Your task to perform on an android device: Do I have any events this weekend? Image 0: 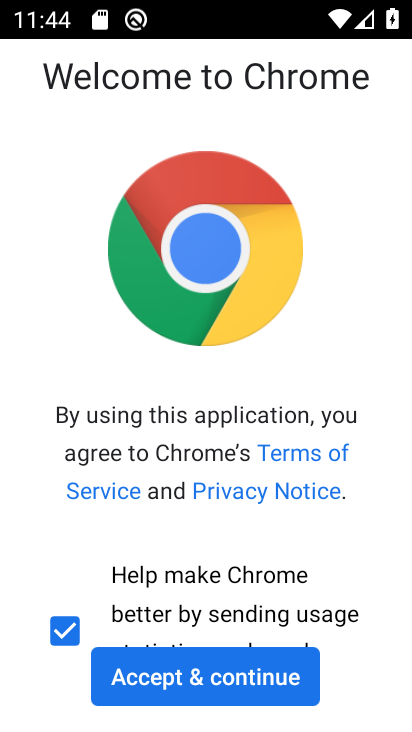
Step 0: click (255, 687)
Your task to perform on an android device: Do I have any events this weekend? Image 1: 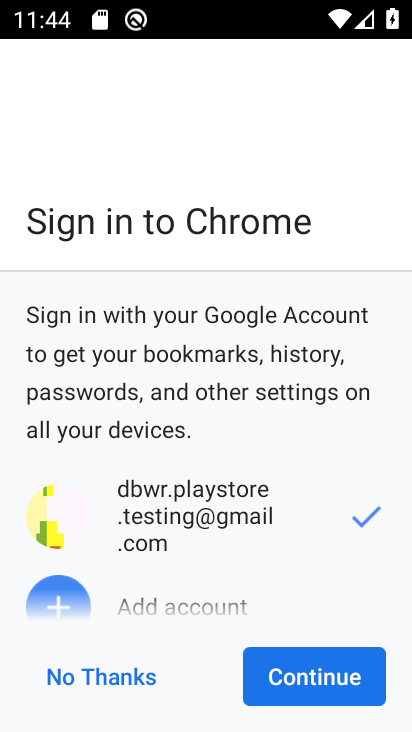
Step 1: click (128, 677)
Your task to perform on an android device: Do I have any events this weekend? Image 2: 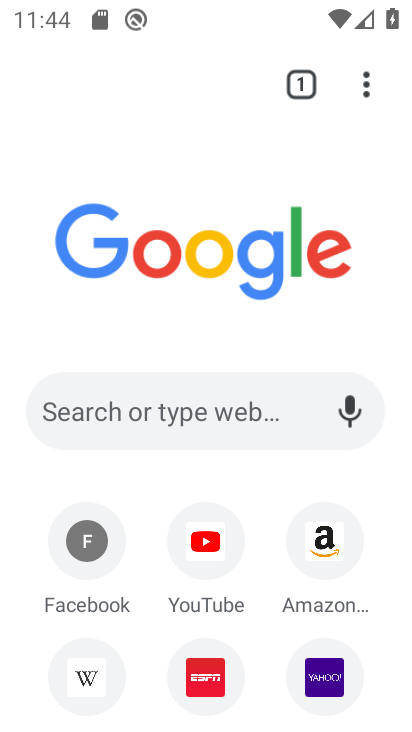
Step 2: press home button
Your task to perform on an android device: Do I have any events this weekend? Image 3: 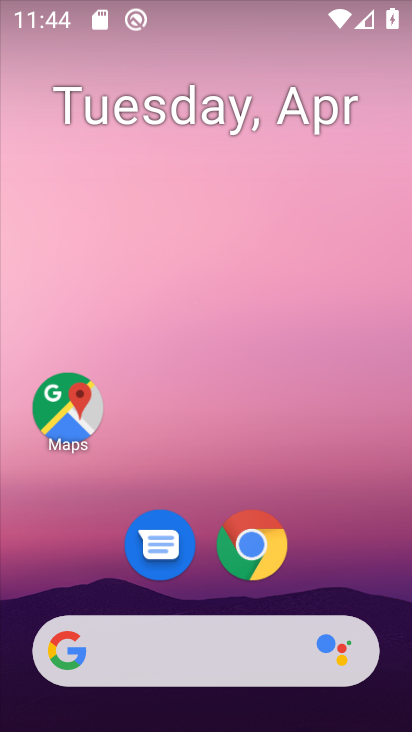
Step 3: drag from (333, 469) to (303, 146)
Your task to perform on an android device: Do I have any events this weekend? Image 4: 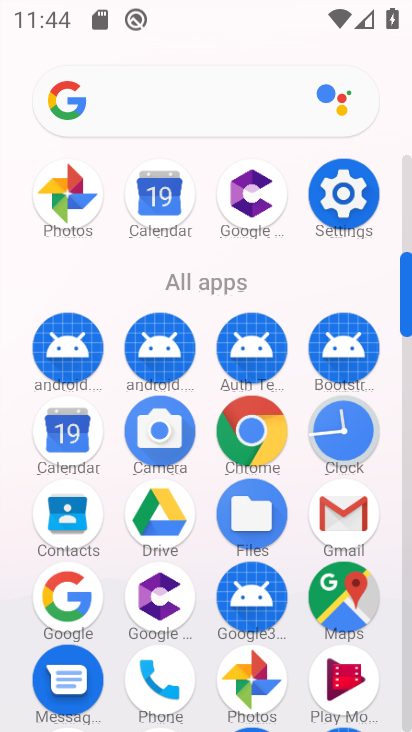
Step 4: click (68, 442)
Your task to perform on an android device: Do I have any events this weekend? Image 5: 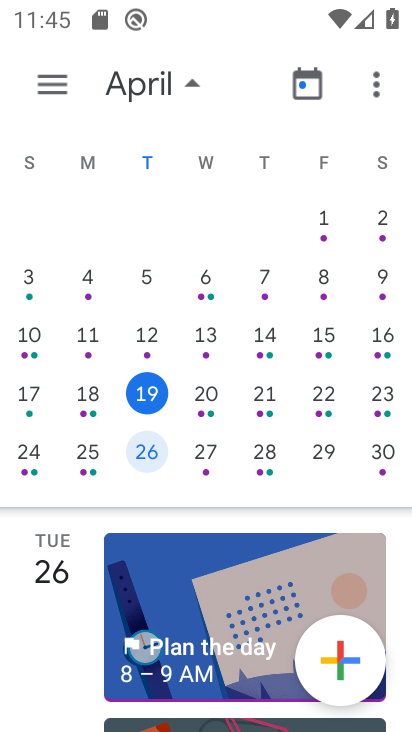
Step 5: click (215, 409)
Your task to perform on an android device: Do I have any events this weekend? Image 6: 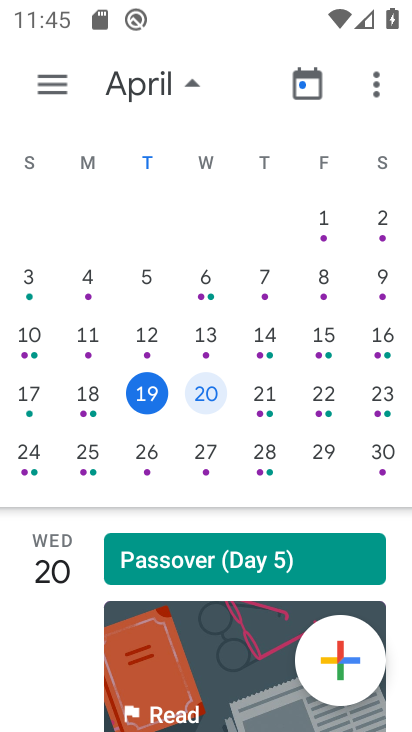
Step 6: task complete